Your task to perform on an android device: Open notification settings Image 0: 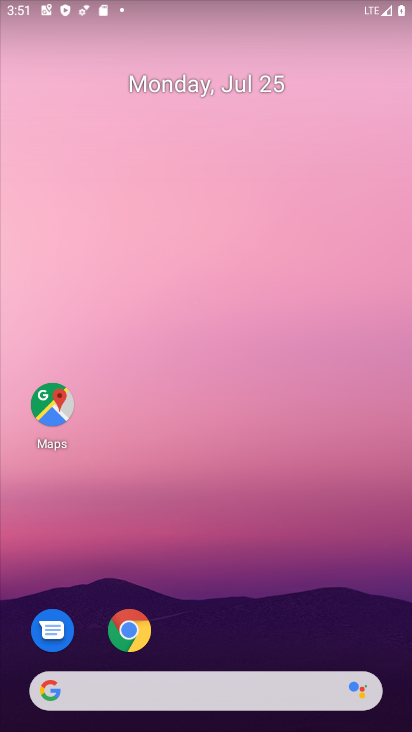
Step 0: drag from (223, 580) to (226, 81)
Your task to perform on an android device: Open notification settings Image 1: 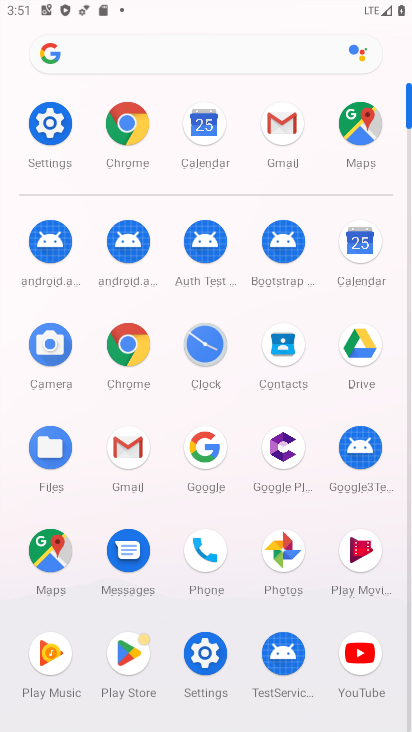
Step 1: click (213, 656)
Your task to perform on an android device: Open notification settings Image 2: 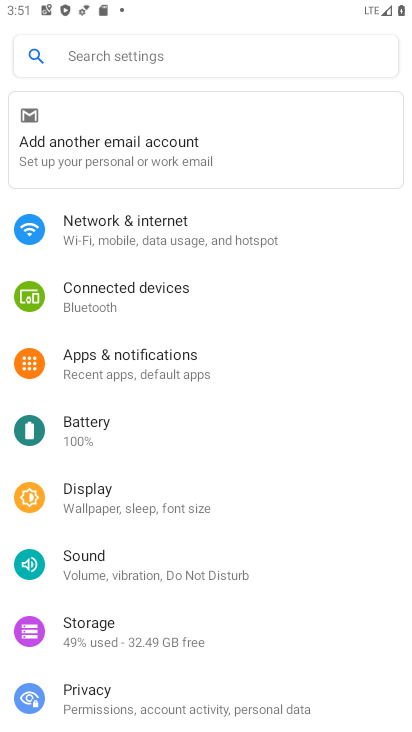
Step 2: click (150, 363)
Your task to perform on an android device: Open notification settings Image 3: 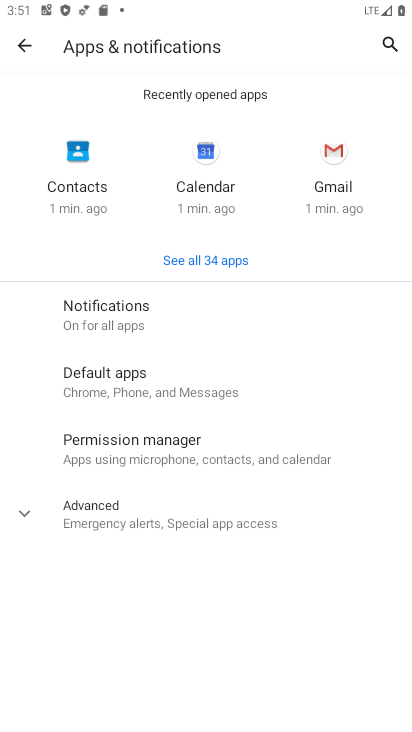
Step 3: click (150, 326)
Your task to perform on an android device: Open notification settings Image 4: 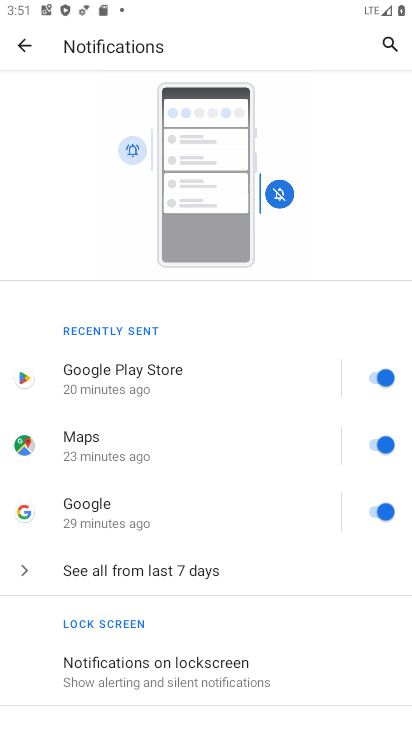
Step 4: task complete